Your task to perform on an android device: change notifications settings Image 0: 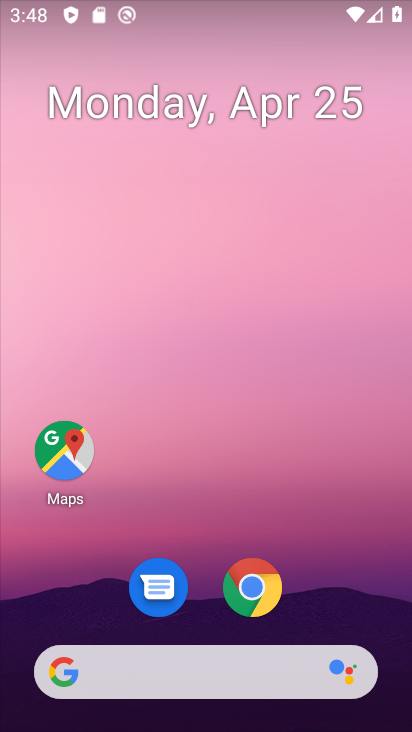
Step 0: drag from (206, 599) to (196, 199)
Your task to perform on an android device: change notifications settings Image 1: 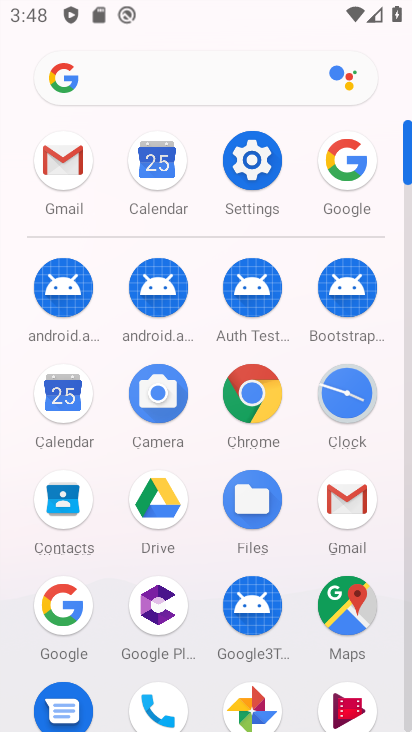
Step 1: click (252, 163)
Your task to perform on an android device: change notifications settings Image 2: 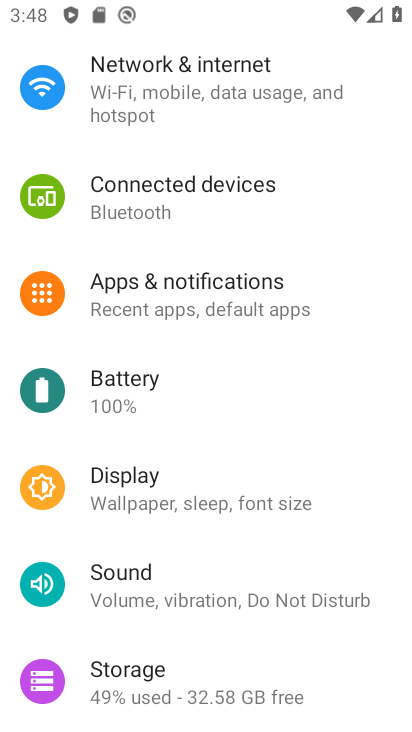
Step 2: click (175, 296)
Your task to perform on an android device: change notifications settings Image 3: 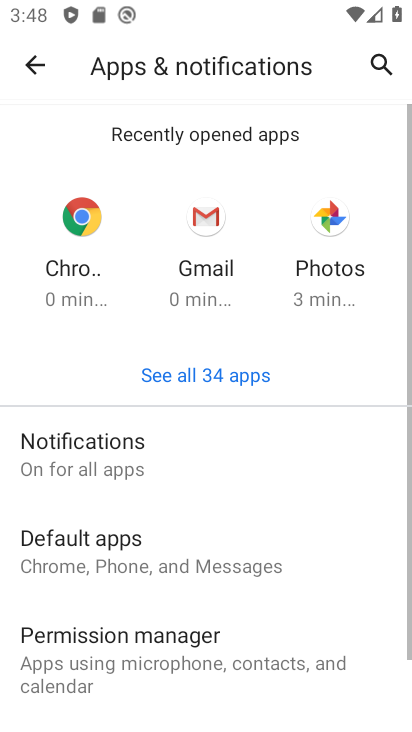
Step 3: drag from (303, 625) to (291, 399)
Your task to perform on an android device: change notifications settings Image 4: 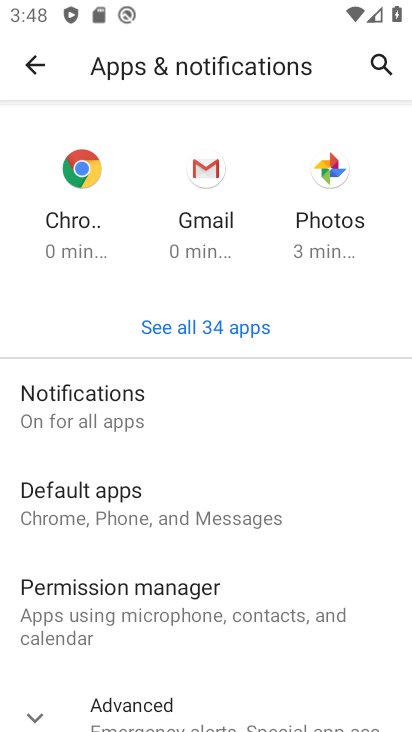
Step 4: click (134, 403)
Your task to perform on an android device: change notifications settings Image 5: 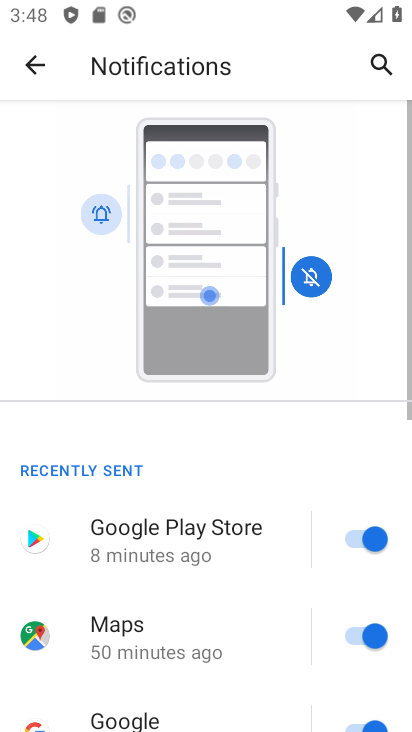
Step 5: drag from (285, 619) to (287, 147)
Your task to perform on an android device: change notifications settings Image 6: 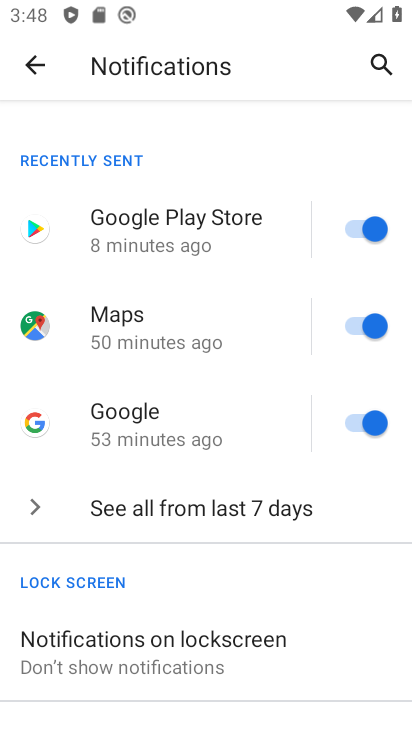
Step 6: drag from (278, 645) to (308, 195)
Your task to perform on an android device: change notifications settings Image 7: 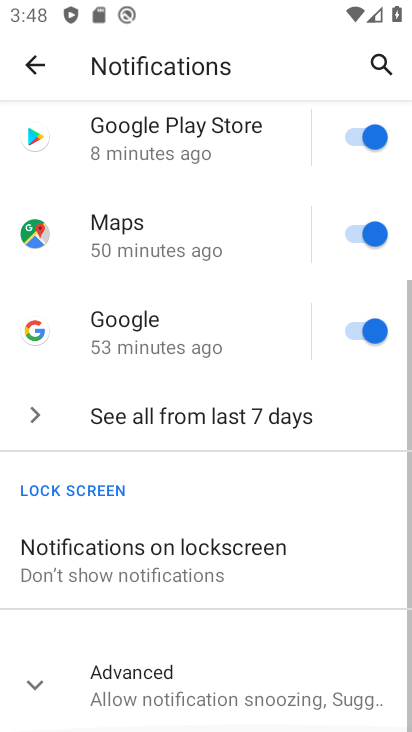
Step 7: click (195, 683)
Your task to perform on an android device: change notifications settings Image 8: 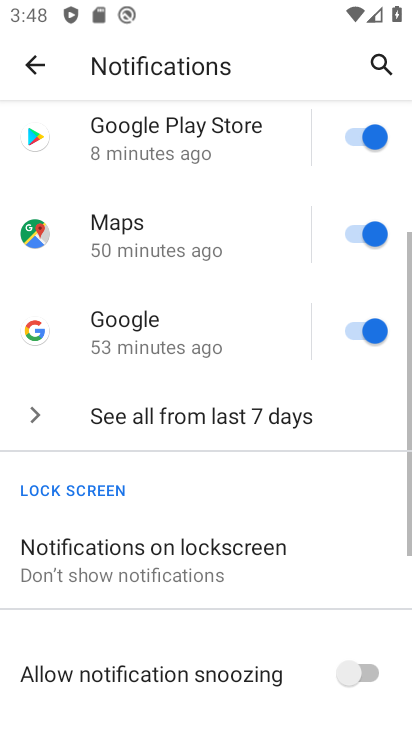
Step 8: drag from (207, 650) to (229, 146)
Your task to perform on an android device: change notifications settings Image 9: 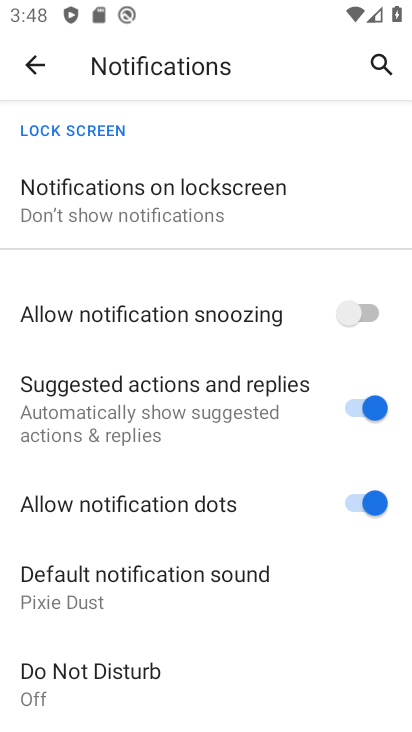
Step 9: click (340, 312)
Your task to perform on an android device: change notifications settings Image 10: 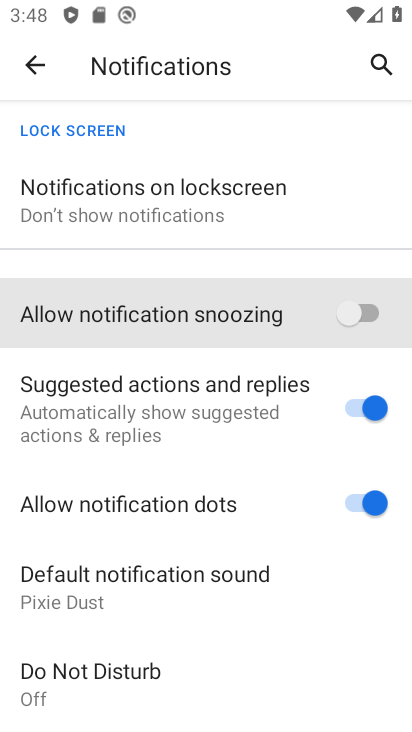
Step 10: click (363, 406)
Your task to perform on an android device: change notifications settings Image 11: 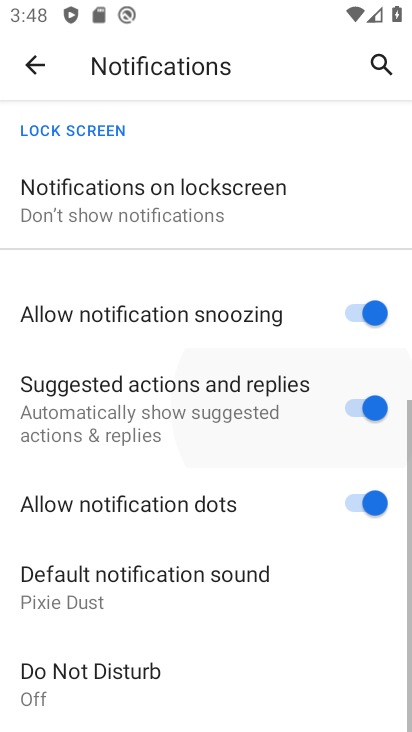
Step 11: click (379, 487)
Your task to perform on an android device: change notifications settings Image 12: 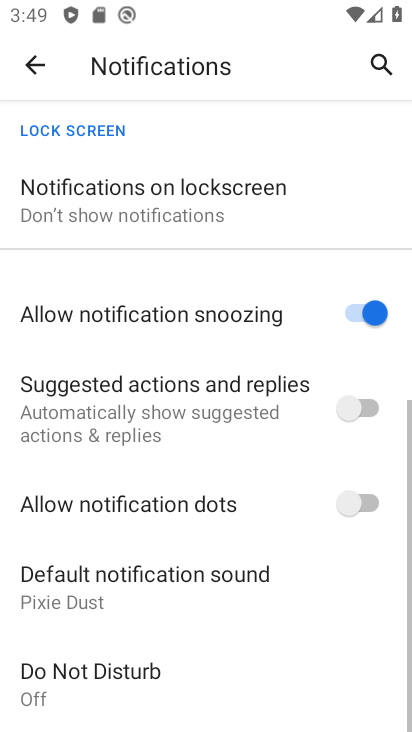
Step 12: task complete